Your task to perform on an android device: open app "LinkedIn" (install if not already installed) and go to login screen Image 0: 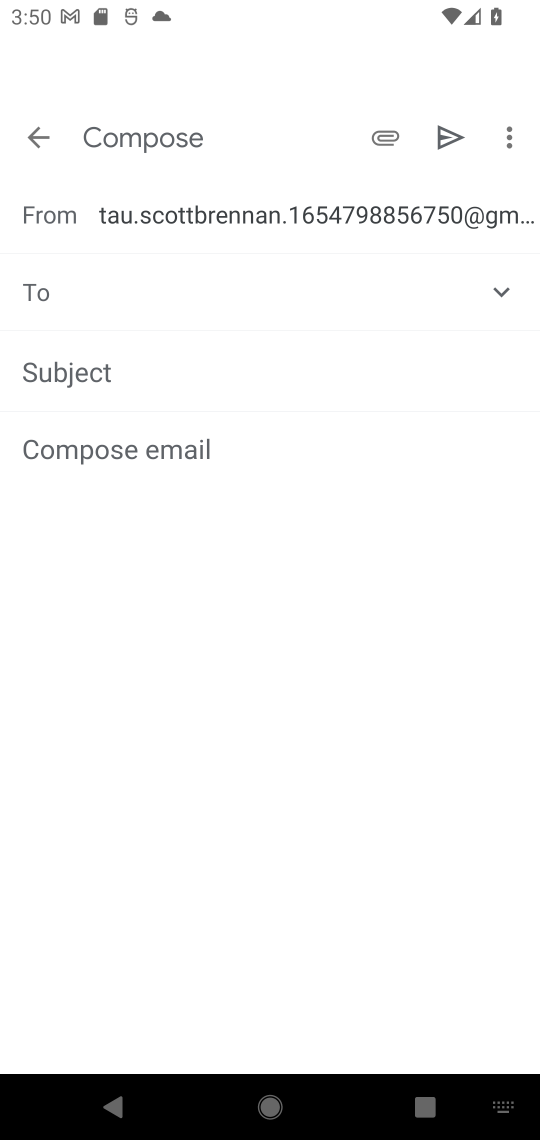
Step 0: press home button
Your task to perform on an android device: open app "LinkedIn" (install if not already installed) and go to login screen Image 1: 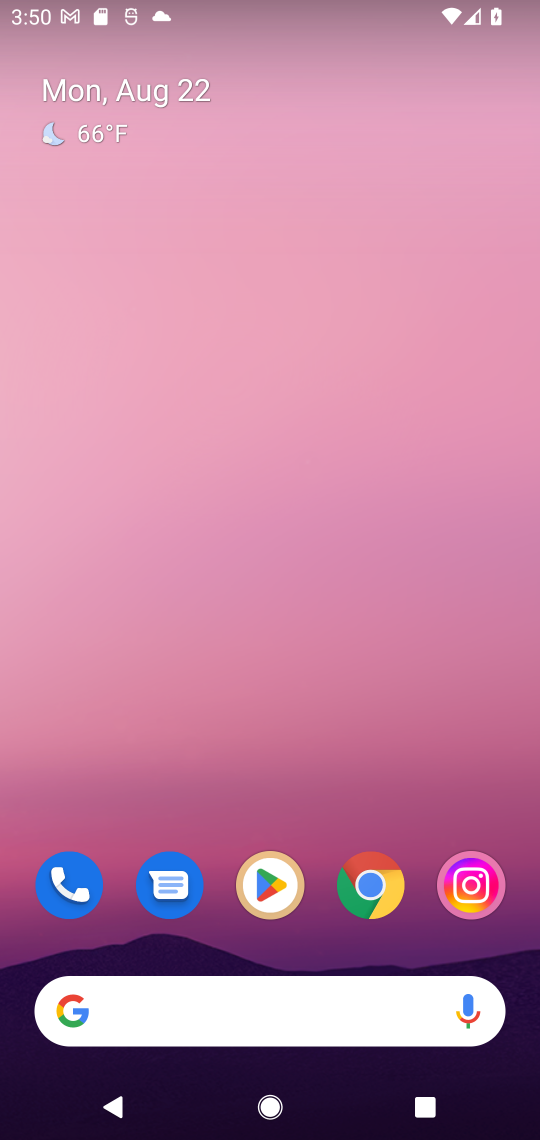
Step 1: click (268, 872)
Your task to perform on an android device: open app "LinkedIn" (install if not already installed) and go to login screen Image 2: 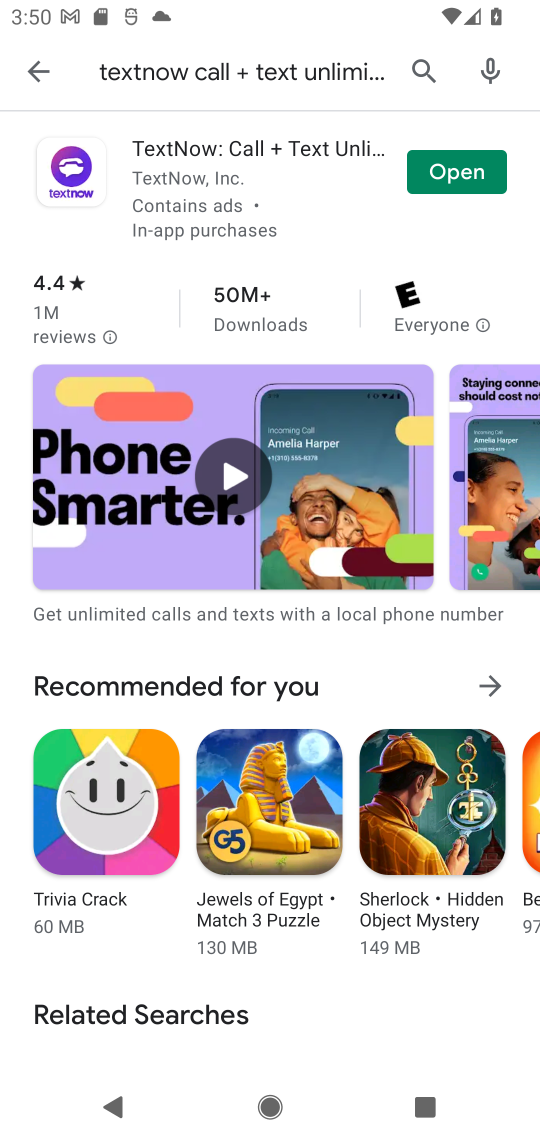
Step 2: click (405, 71)
Your task to perform on an android device: open app "LinkedIn" (install if not already installed) and go to login screen Image 3: 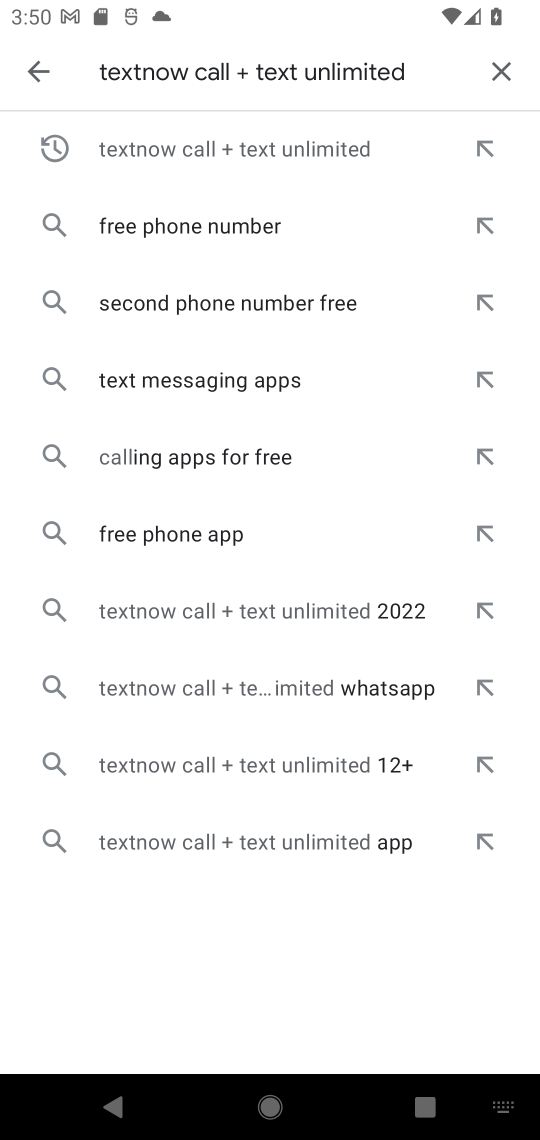
Step 3: click (509, 62)
Your task to perform on an android device: open app "LinkedIn" (install if not already installed) and go to login screen Image 4: 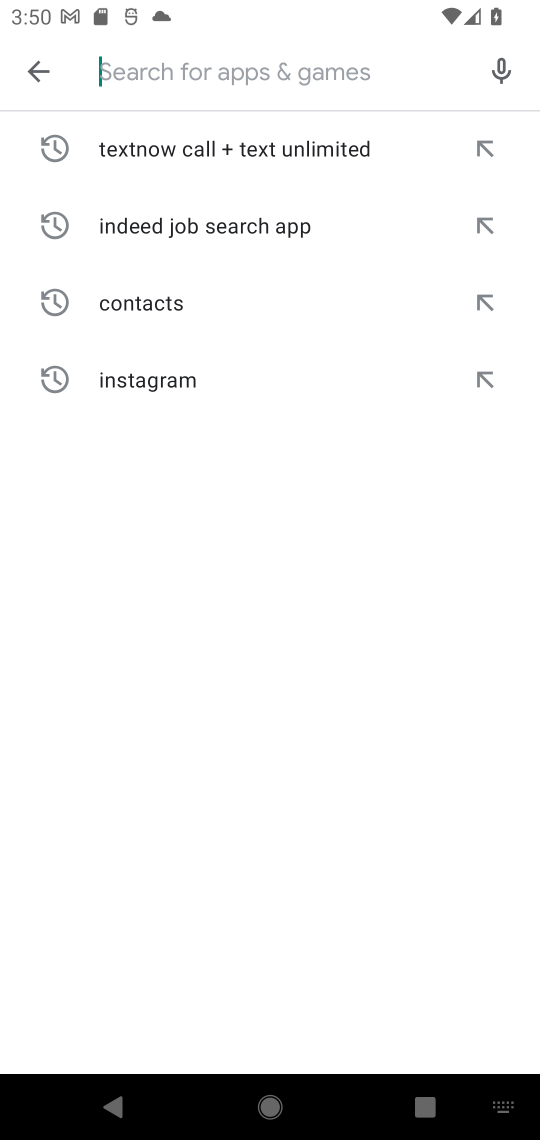
Step 4: type "LinkedIn"
Your task to perform on an android device: open app "LinkedIn" (install if not already installed) and go to login screen Image 5: 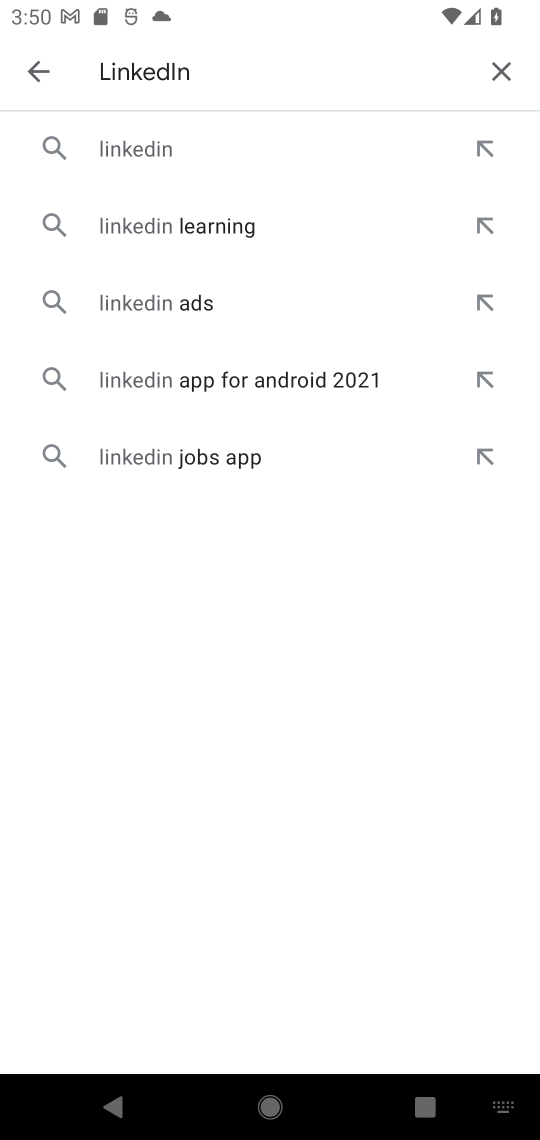
Step 5: click (137, 146)
Your task to perform on an android device: open app "LinkedIn" (install if not already installed) and go to login screen Image 6: 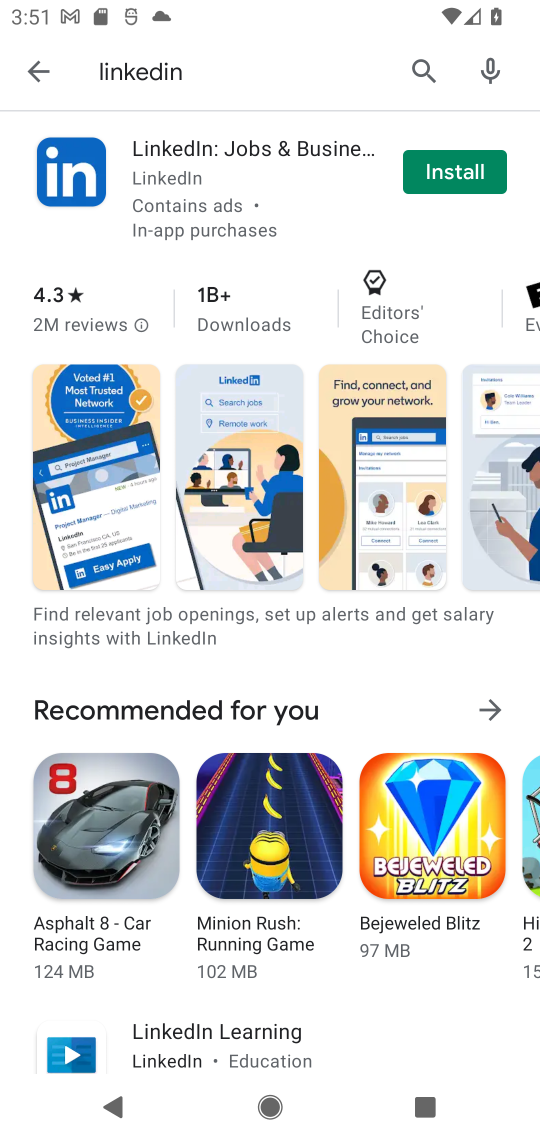
Step 6: click (458, 167)
Your task to perform on an android device: open app "LinkedIn" (install if not already installed) and go to login screen Image 7: 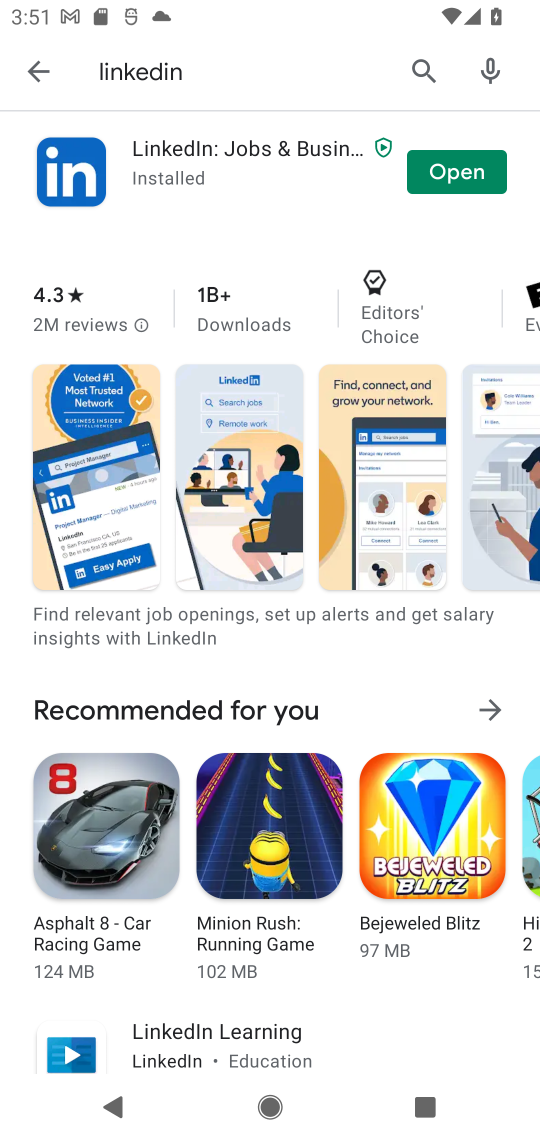
Step 7: click (458, 170)
Your task to perform on an android device: open app "LinkedIn" (install if not already installed) and go to login screen Image 8: 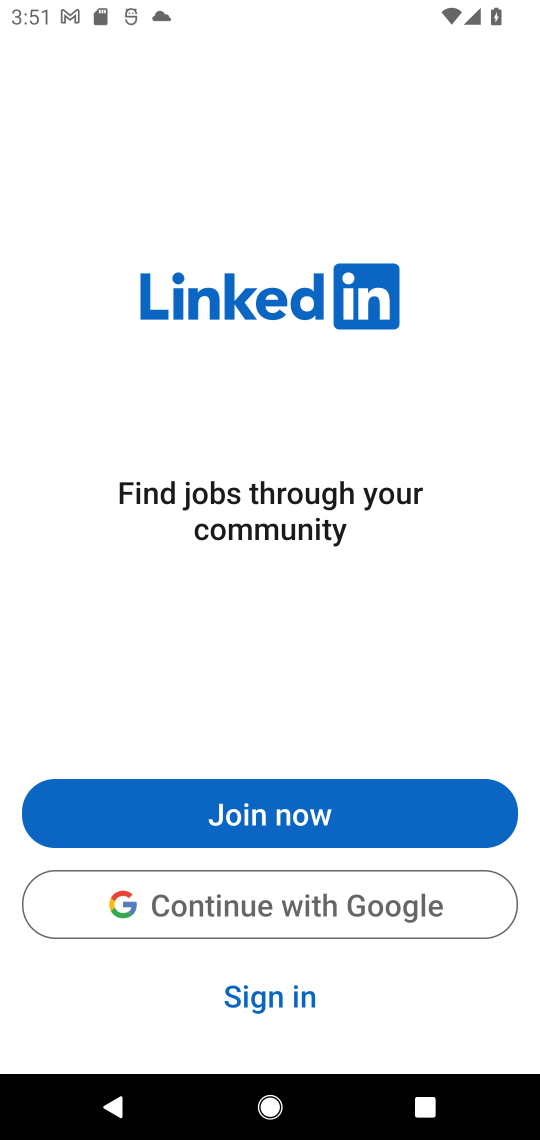
Step 8: click (254, 909)
Your task to perform on an android device: open app "LinkedIn" (install if not already installed) and go to login screen Image 9: 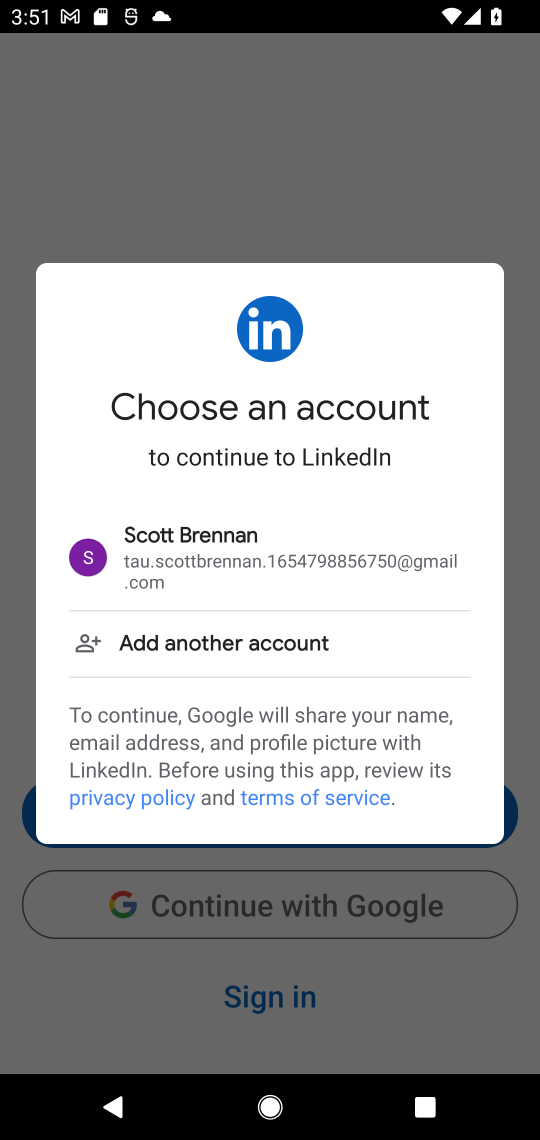
Step 9: click (201, 549)
Your task to perform on an android device: open app "LinkedIn" (install if not already installed) and go to login screen Image 10: 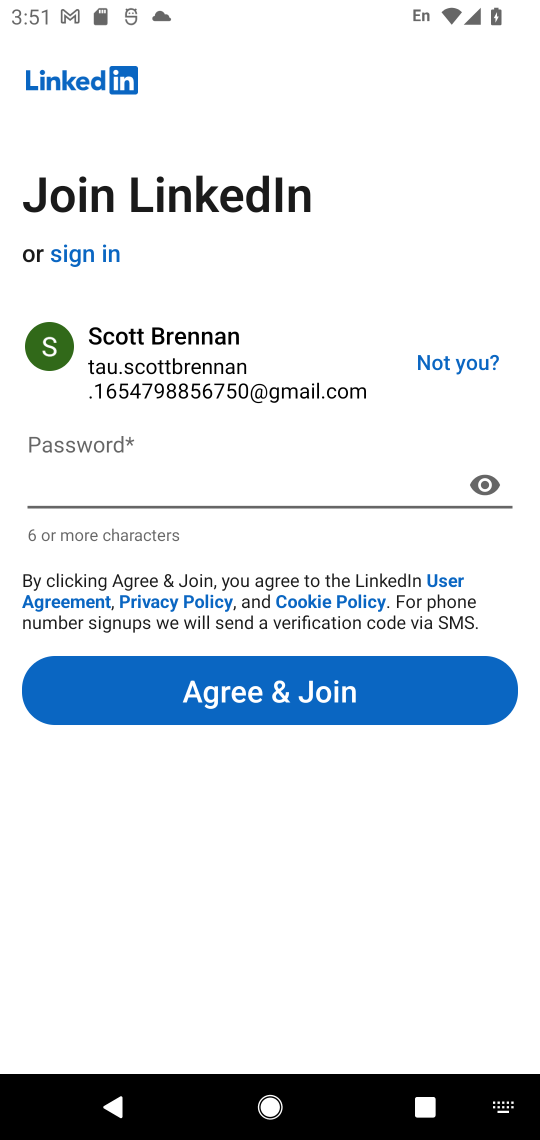
Step 10: click (255, 699)
Your task to perform on an android device: open app "LinkedIn" (install if not already installed) and go to login screen Image 11: 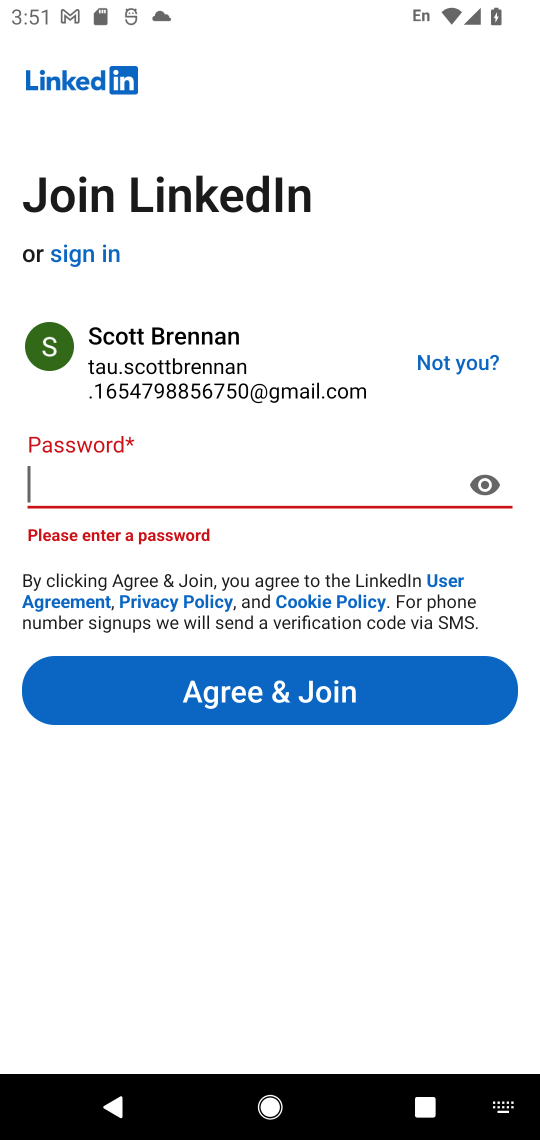
Step 11: task complete